Your task to perform on an android device: turn off notifications settings in the gmail app Image 0: 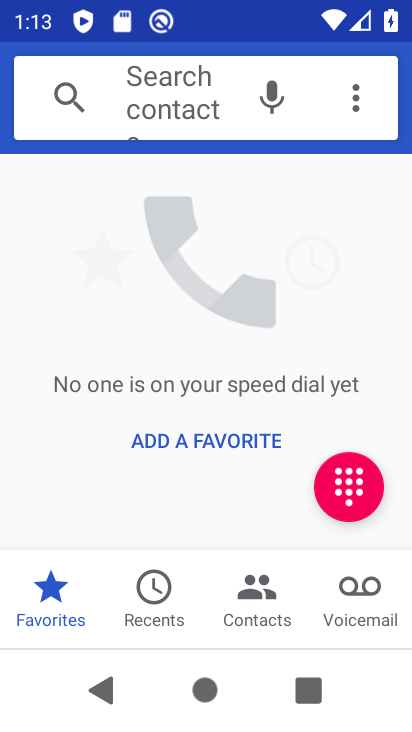
Step 0: press home button
Your task to perform on an android device: turn off notifications settings in the gmail app Image 1: 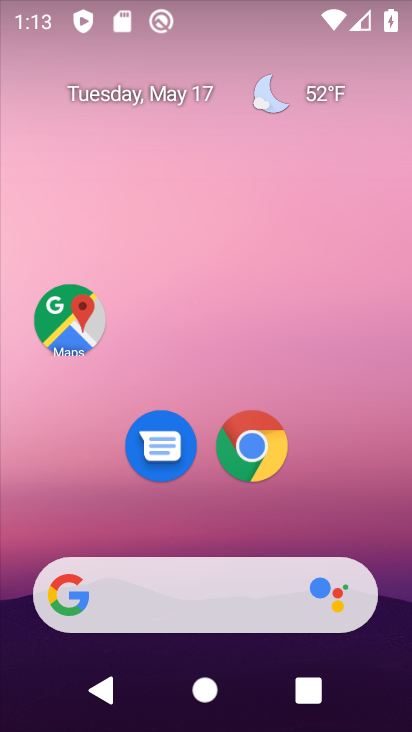
Step 1: drag from (344, 525) to (321, 161)
Your task to perform on an android device: turn off notifications settings in the gmail app Image 2: 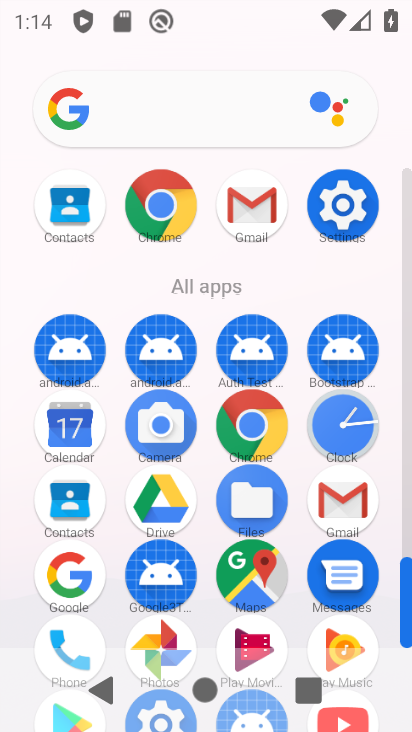
Step 2: click (340, 506)
Your task to perform on an android device: turn off notifications settings in the gmail app Image 3: 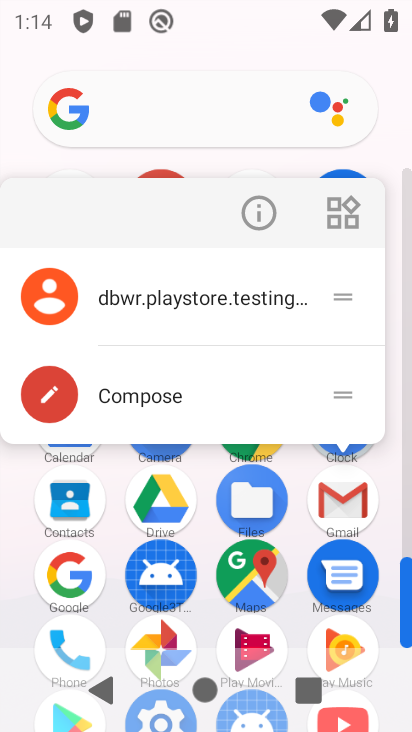
Step 3: click (248, 219)
Your task to perform on an android device: turn off notifications settings in the gmail app Image 4: 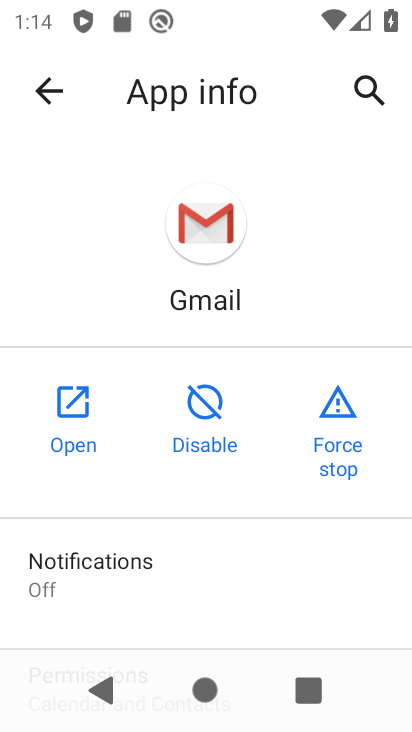
Step 4: click (185, 547)
Your task to perform on an android device: turn off notifications settings in the gmail app Image 5: 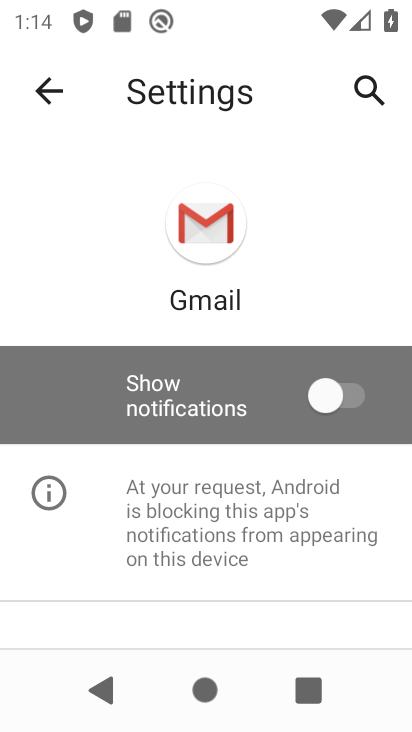
Step 5: task complete